Your task to perform on an android device: See recent photos Image 0: 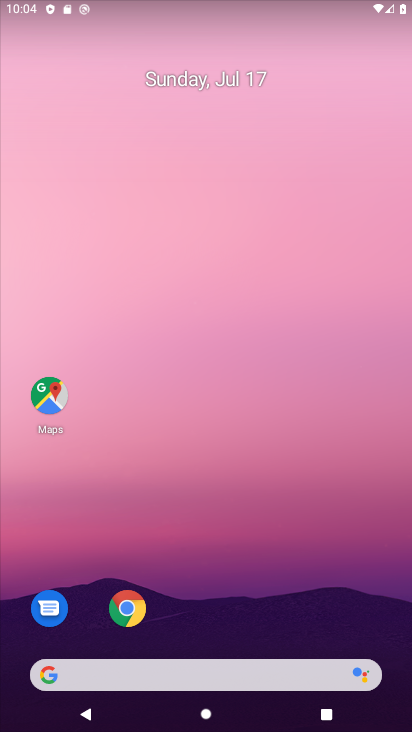
Step 0: drag from (233, 631) to (271, 56)
Your task to perform on an android device: See recent photos Image 1: 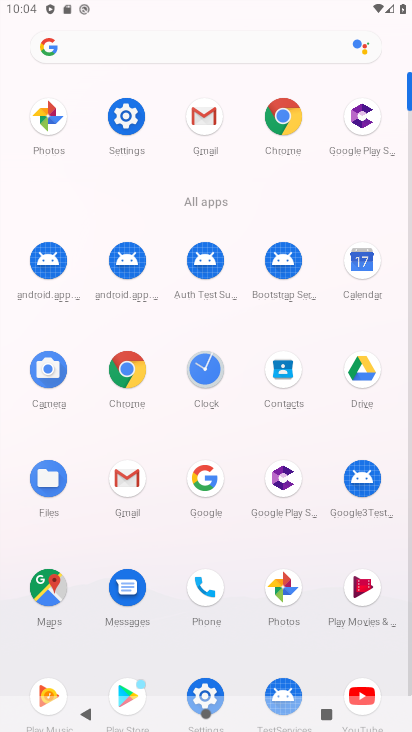
Step 1: click (283, 582)
Your task to perform on an android device: See recent photos Image 2: 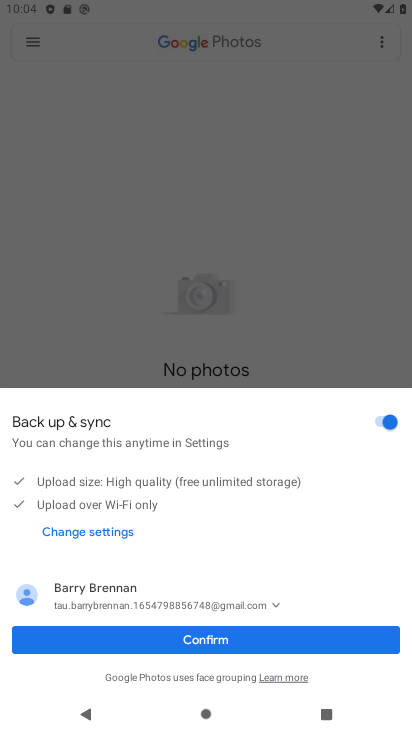
Step 2: click (192, 639)
Your task to perform on an android device: See recent photos Image 3: 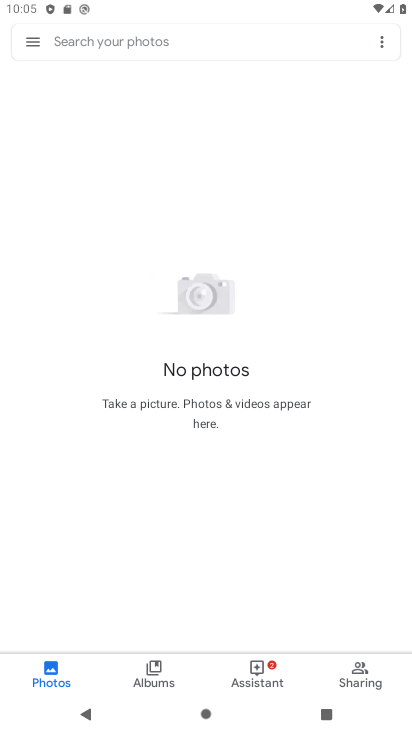
Step 3: task complete